Your task to perform on an android device: install app "Microsoft Authenticator" Image 0: 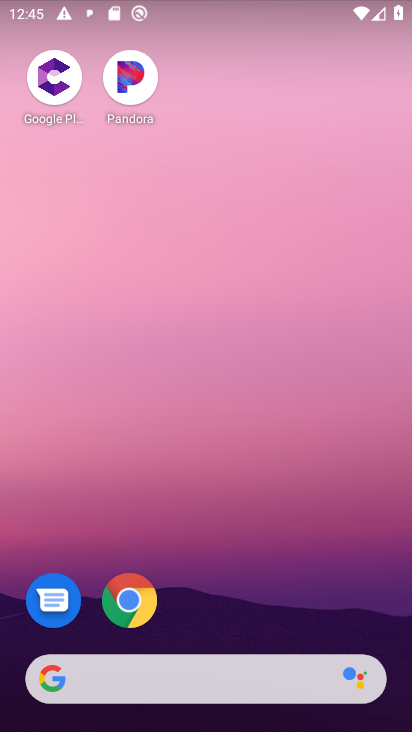
Step 0: drag from (247, 574) to (229, 179)
Your task to perform on an android device: install app "Microsoft Authenticator" Image 1: 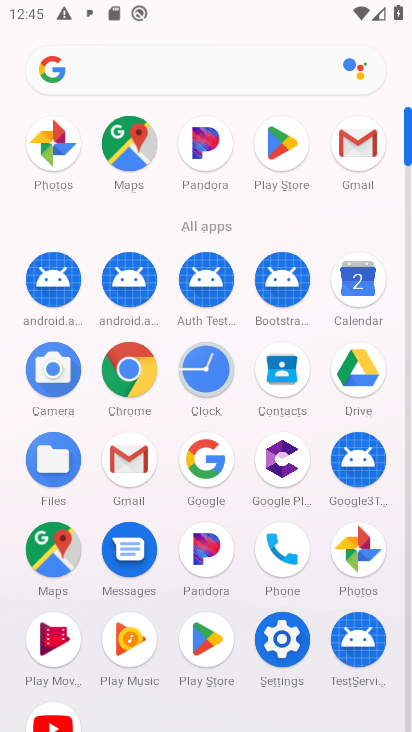
Step 1: click (198, 640)
Your task to perform on an android device: install app "Microsoft Authenticator" Image 2: 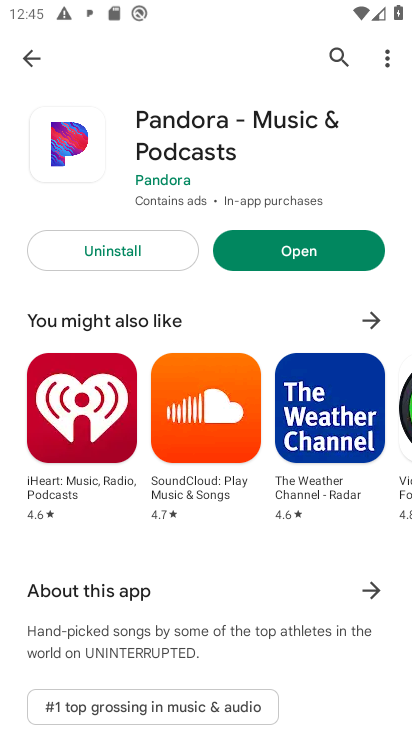
Step 2: click (25, 52)
Your task to perform on an android device: install app "Microsoft Authenticator" Image 3: 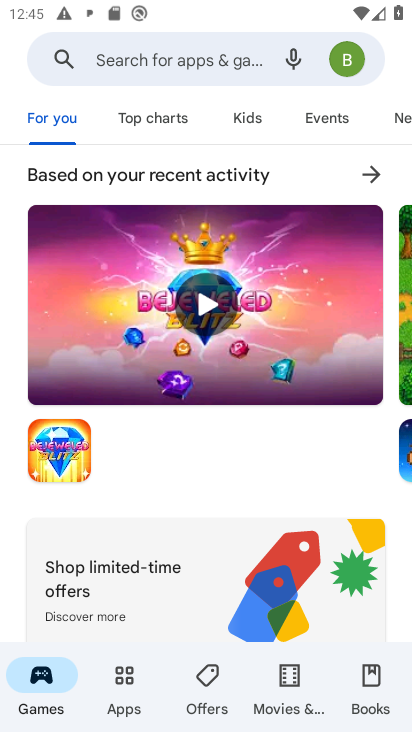
Step 3: click (163, 60)
Your task to perform on an android device: install app "Microsoft Authenticator" Image 4: 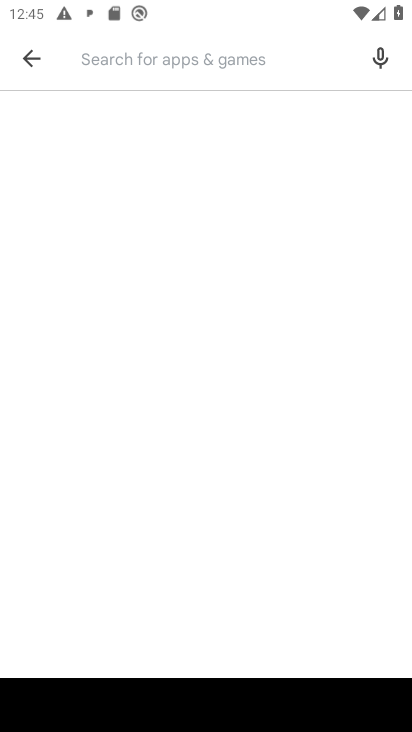
Step 4: type "Microsoft Authenticator"
Your task to perform on an android device: install app "Microsoft Authenticator" Image 5: 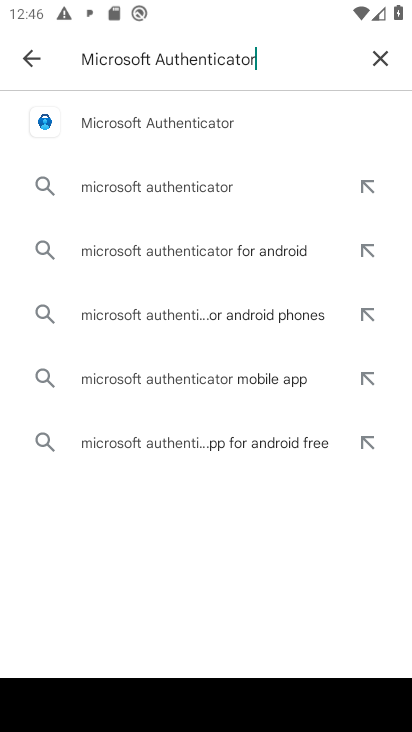
Step 5: click (220, 130)
Your task to perform on an android device: install app "Microsoft Authenticator" Image 6: 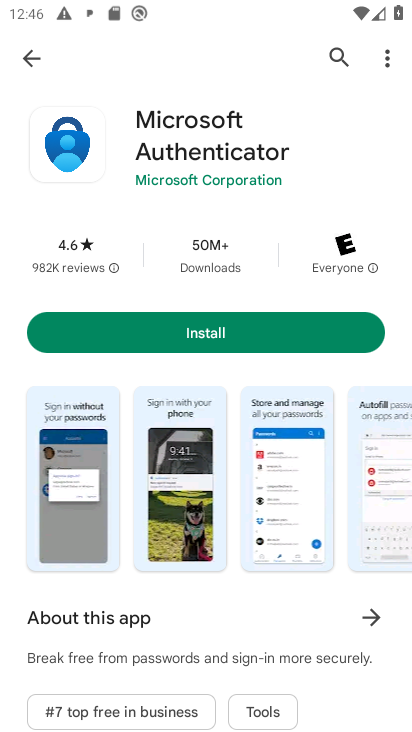
Step 6: click (172, 334)
Your task to perform on an android device: install app "Microsoft Authenticator" Image 7: 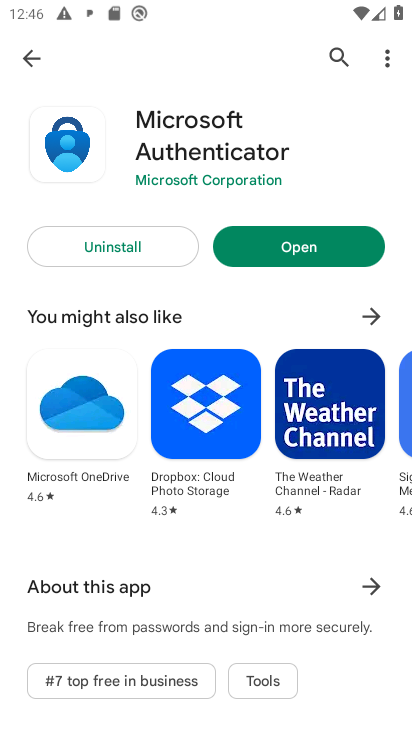
Step 7: click (265, 249)
Your task to perform on an android device: install app "Microsoft Authenticator" Image 8: 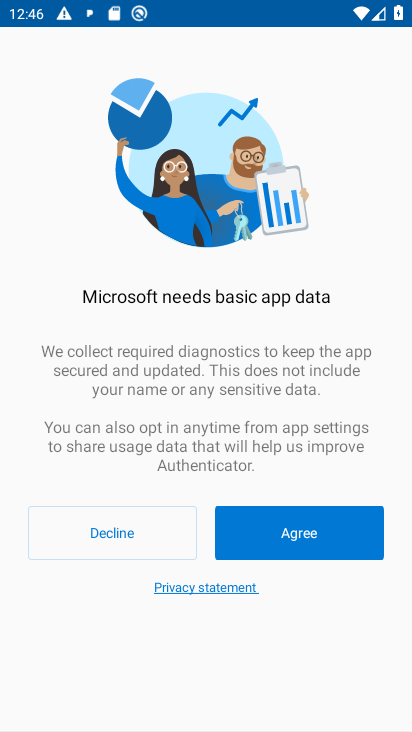
Step 8: task complete